Your task to perform on an android device: create a new album in the google photos Image 0: 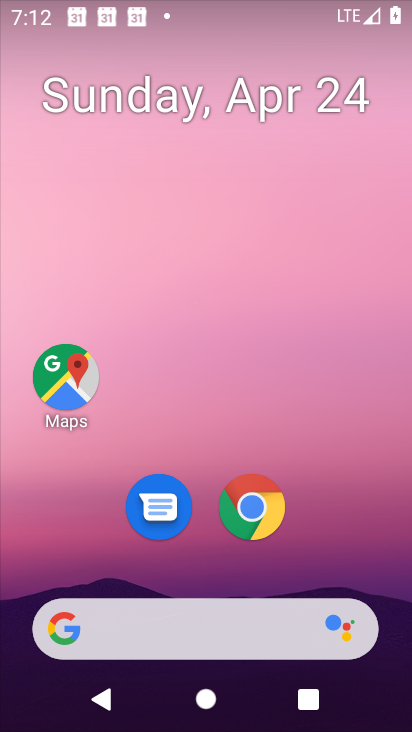
Step 0: drag from (338, 459) to (323, 24)
Your task to perform on an android device: create a new album in the google photos Image 1: 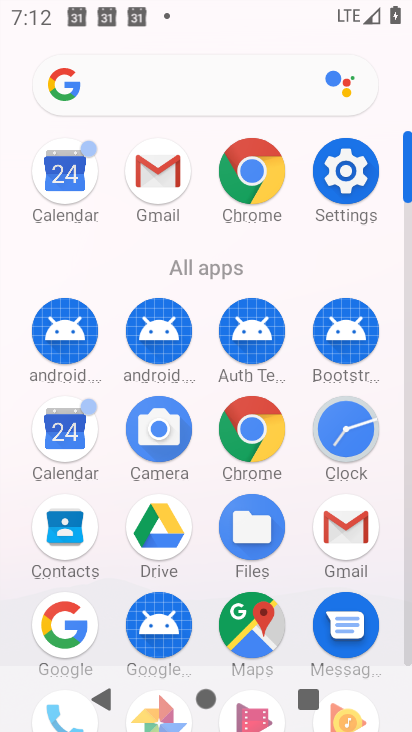
Step 1: drag from (395, 470) to (404, 135)
Your task to perform on an android device: create a new album in the google photos Image 2: 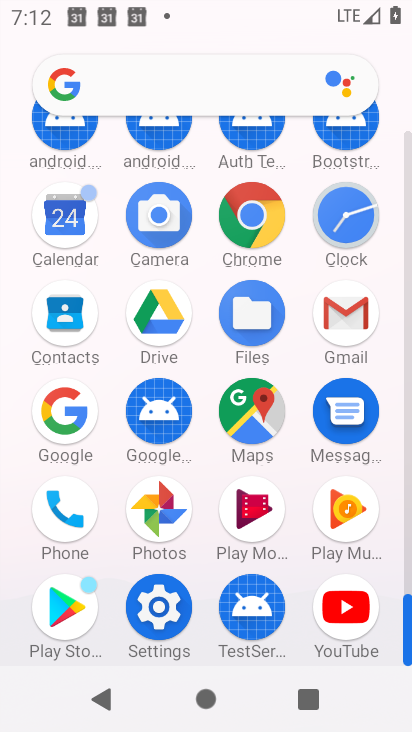
Step 2: click (154, 524)
Your task to perform on an android device: create a new album in the google photos Image 3: 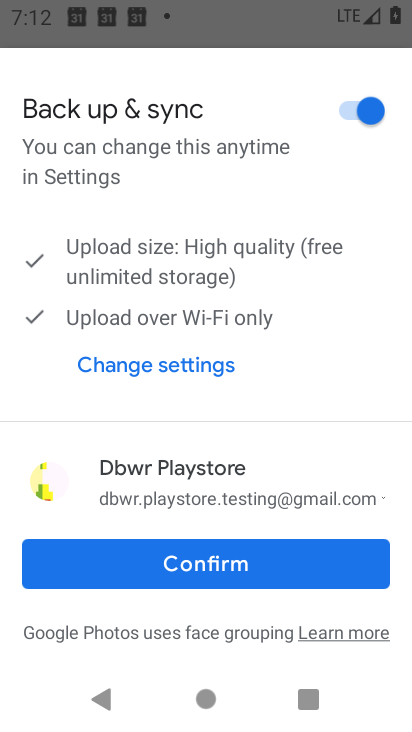
Step 3: click (165, 549)
Your task to perform on an android device: create a new album in the google photos Image 4: 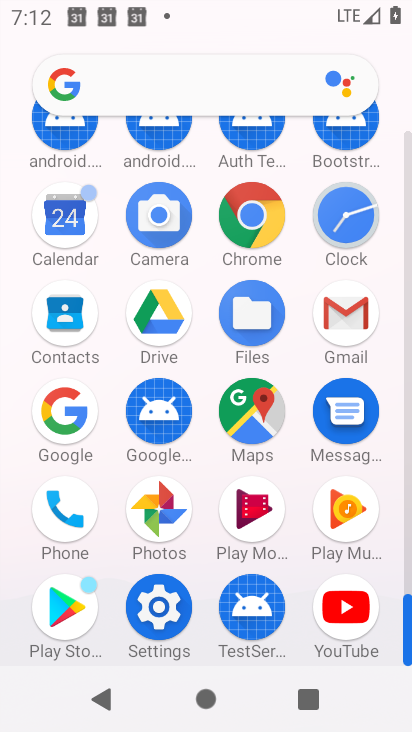
Step 4: click (143, 511)
Your task to perform on an android device: create a new album in the google photos Image 5: 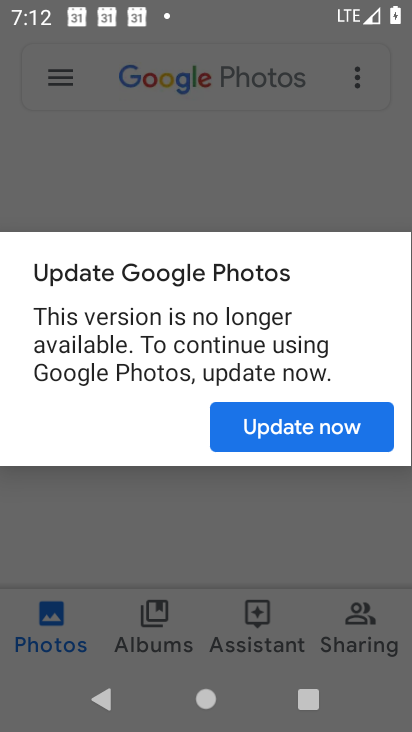
Step 5: click (284, 430)
Your task to perform on an android device: create a new album in the google photos Image 6: 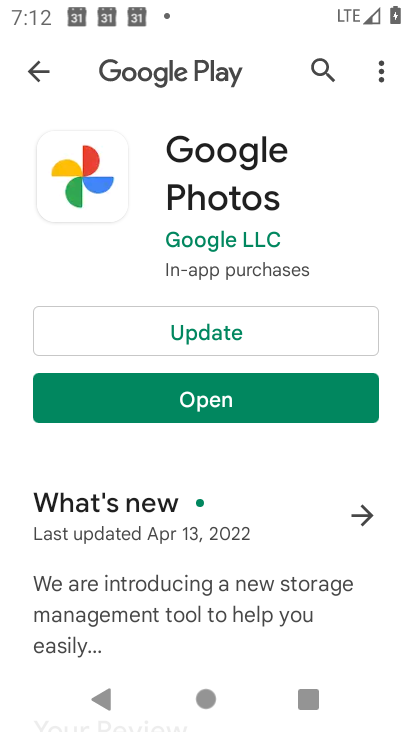
Step 6: click (284, 430)
Your task to perform on an android device: create a new album in the google photos Image 7: 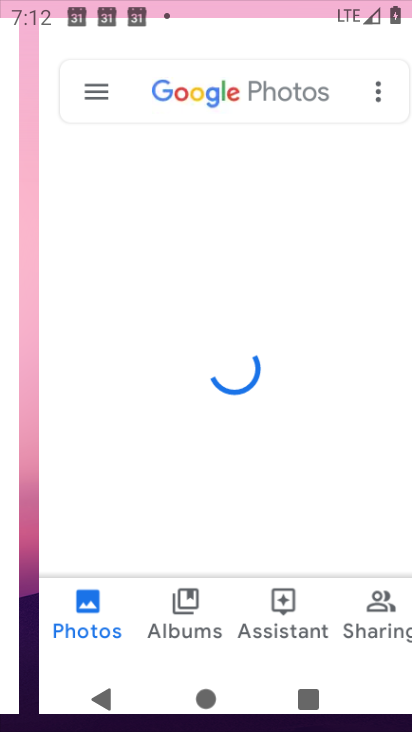
Step 7: click (208, 323)
Your task to perform on an android device: create a new album in the google photos Image 8: 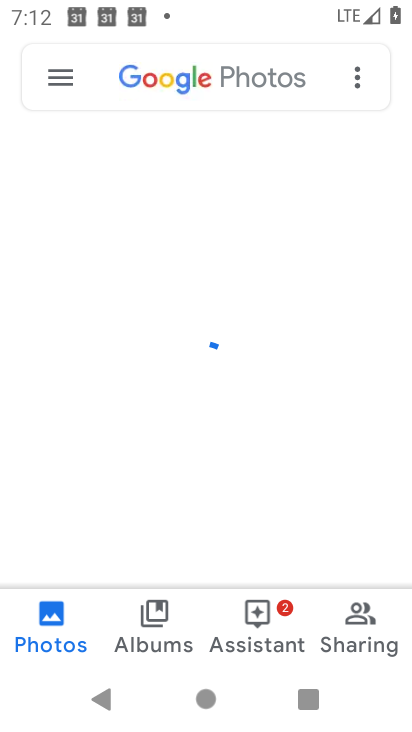
Step 8: click (159, 633)
Your task to perform on an android device: create a new album in the google photos Image 9: 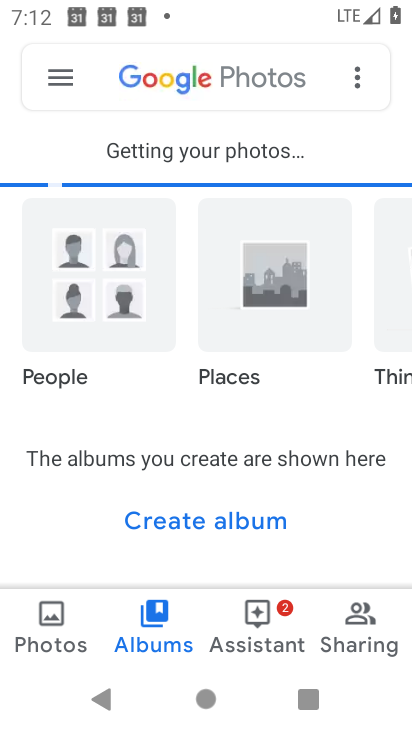
Step 9: drag from (241, 473) to (228, 185)
Your task to perform on an android device: create a new album in the google photos Image 10: 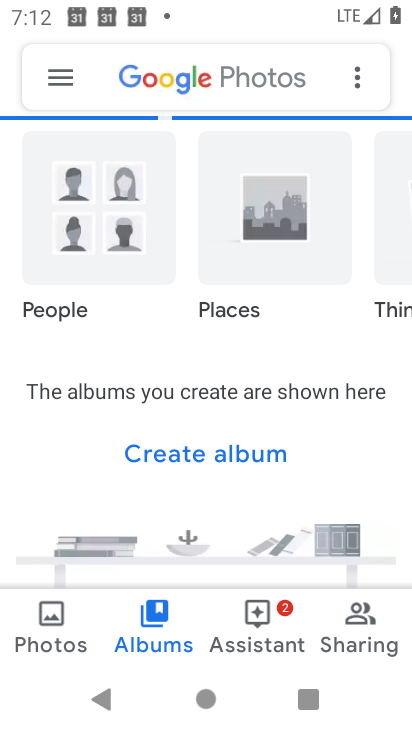
Step 10: click (218, 447)
Your task to perform on an android device: create a new album in the google photos Image 11: 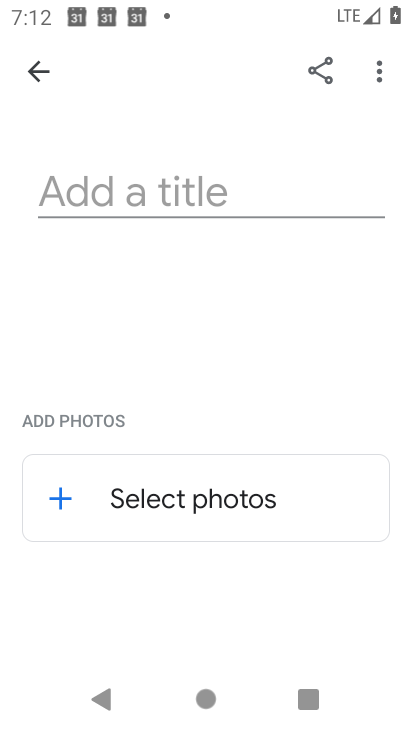
Step 11: click (189, 485)
Your task to perform on an android device: create a new album in the google photos Image 12: 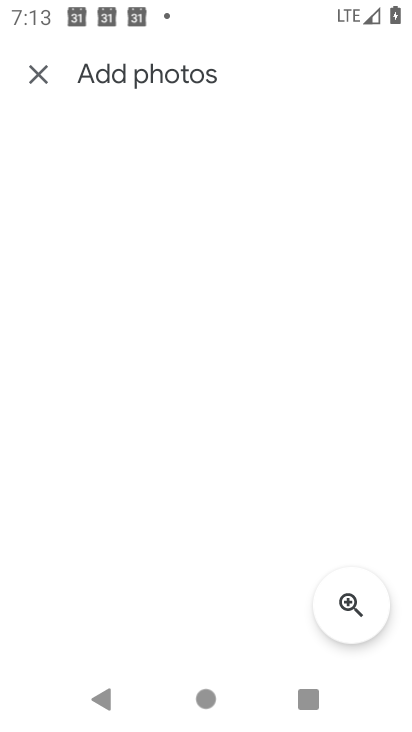
Step 12: click (135, 69)
Your task to perform on an android device: create a new album in the google photos Image 13: 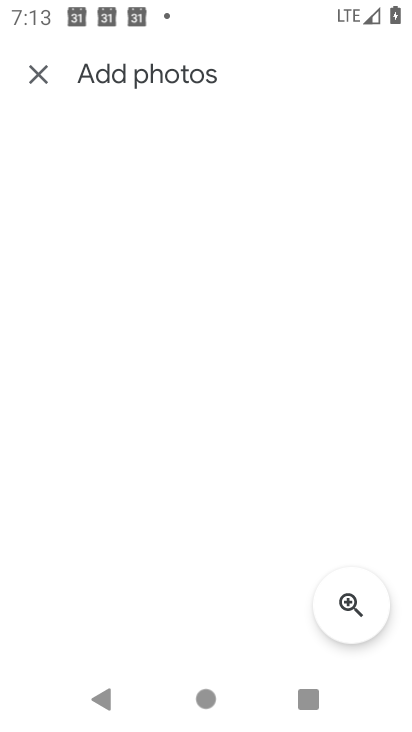
Step 13: click (36, 79)
Your task to perform on an android device: create a new album in the google photos Image 14: 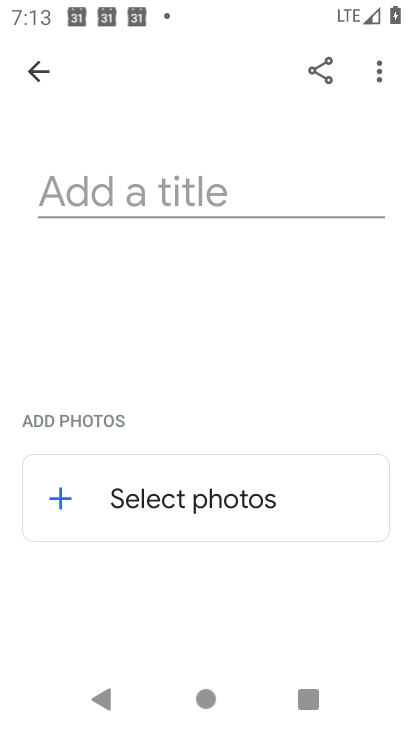
Step 14: click (187, 490)
Your task to perform on an android device: create a new album in the google photos Image 15: 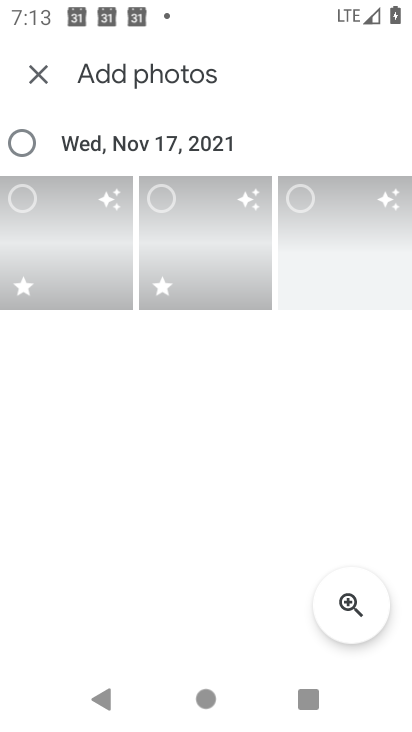
Step 15: click (31, 68)
Your task to perform on an android device: create a new album in the google photos Image 16: 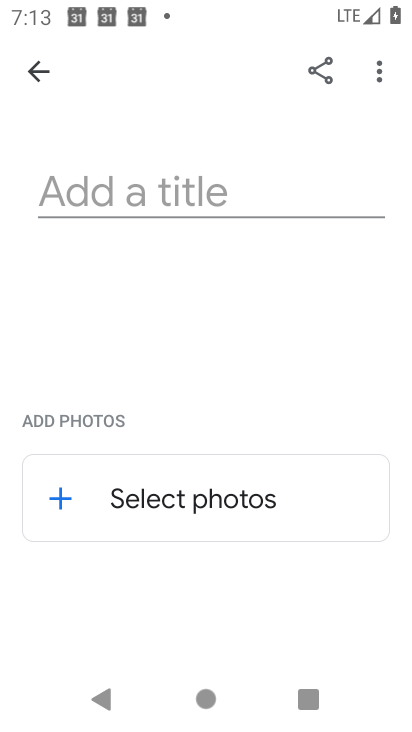
Step 16: click (81, 193)
Your task to perform on an android device: create a new album in the google photos Image 17: 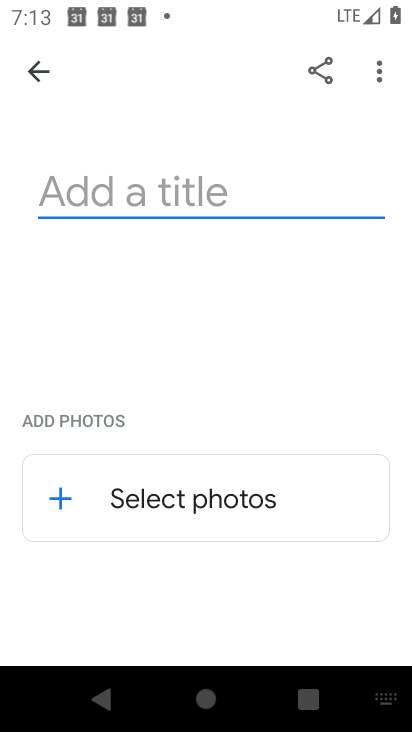
Step 17: type "sweet"
Your task to perform on an android device: create a new album in the google photos Image 18: 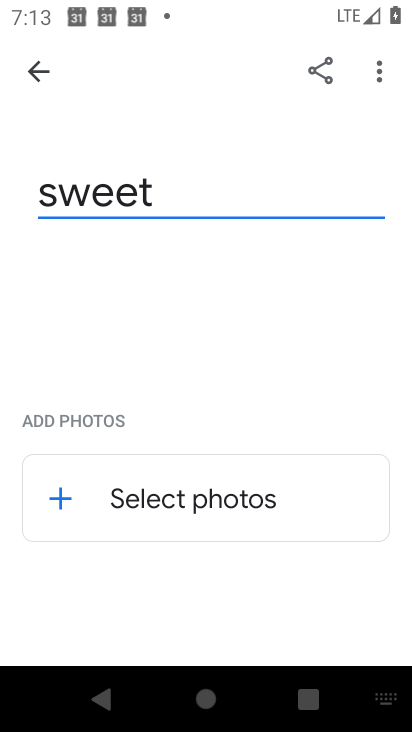
Step 18: click (227, 498)
Your task to perform on an android device: create a new album in the google photos Image 19: 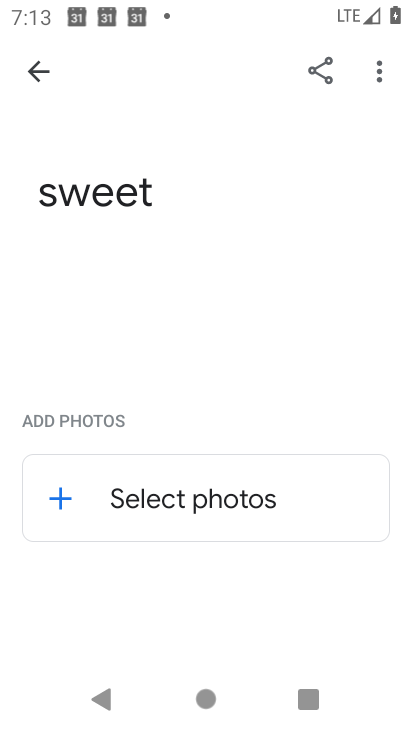
Step 19: click (227, 498)
Your task to perform on an android device: create a new album in the google photos Image 20: 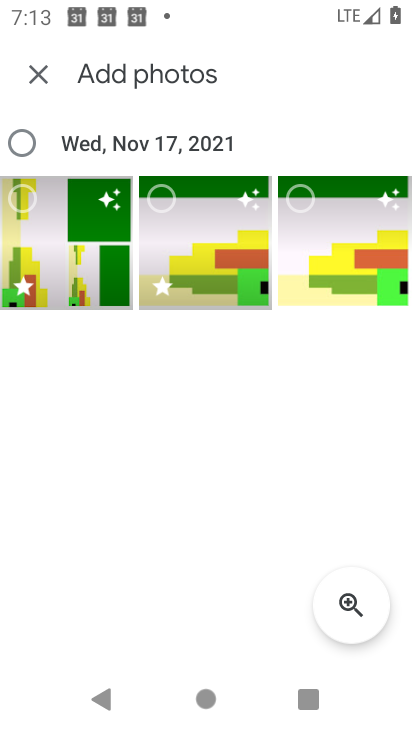
Step 20: click (13, 224)
Your task to perform on an android device: create a new album in the google photos Image 21: 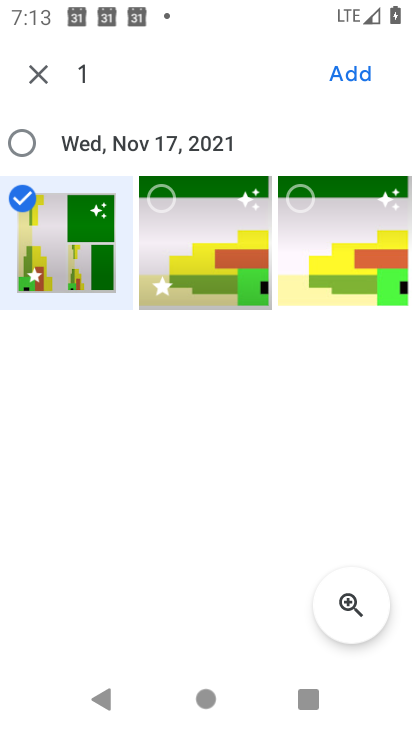
Step 21: click (170, 206)
Your task to perform on an android device: create a new album in the google photos Image 22: 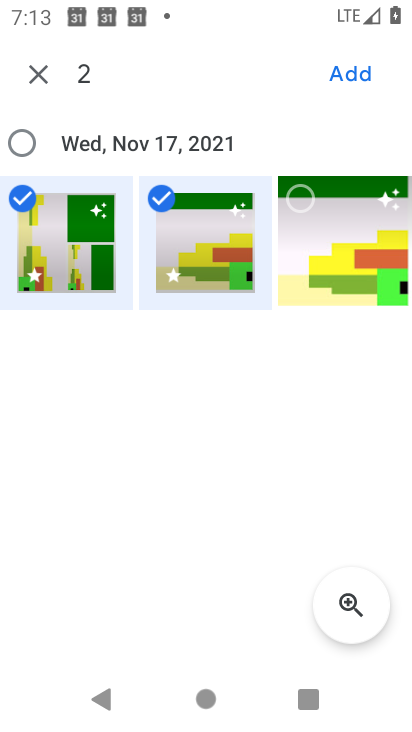
Step 22: click (306, 210)
Your task to perform on an android device: create a new album in the google photos Image 23: 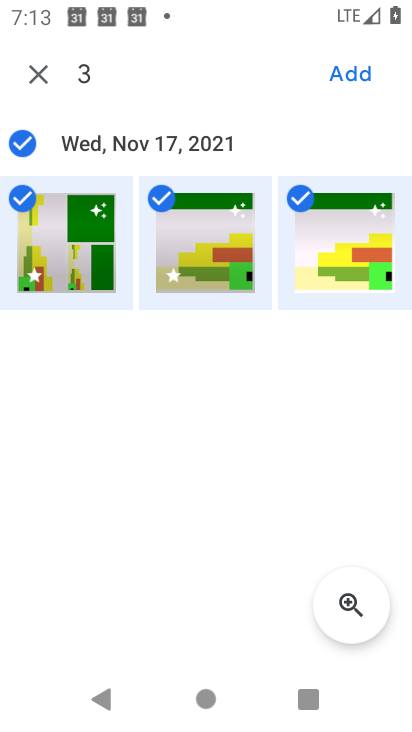
Step 23: click (345, 87)
Your task to perform on an android device: create a new album in the google photos Image 24: 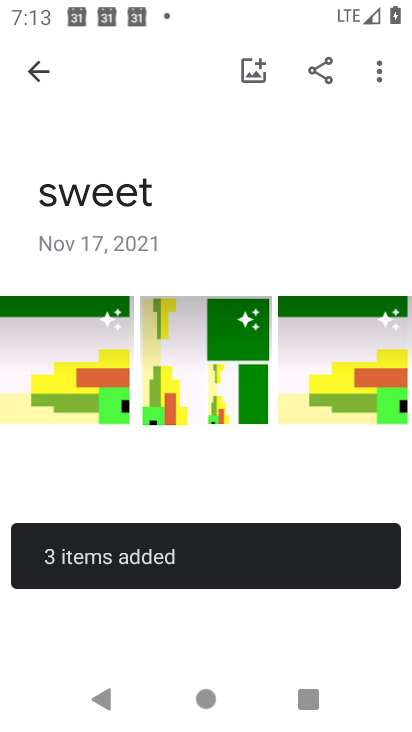
Step 24: task complete